Your task to perform on an android device: turn on location history Image 0: 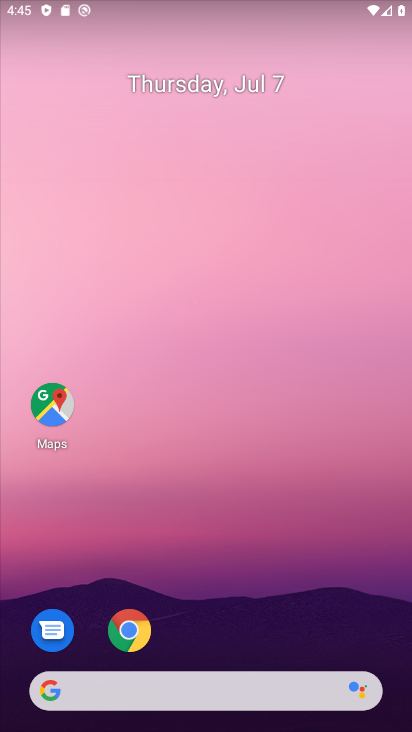
Step 0: drag from (276, 679) to (154, 167)
Your task to perform on an android device: turn on location history Image 1: 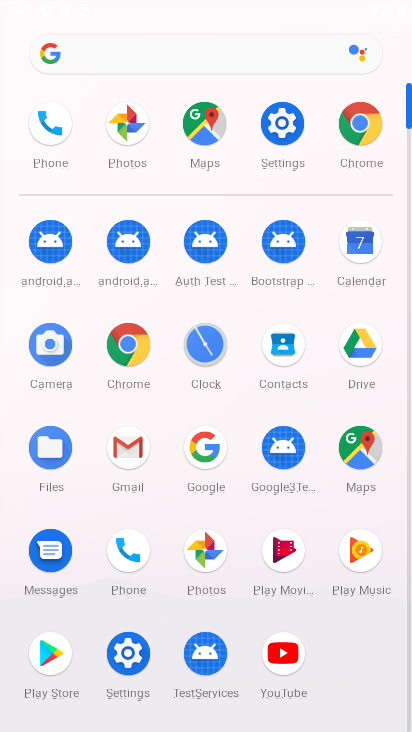
Step 1: click (285, 113)
Your task to perform on an android device: turn on location history Image 2: 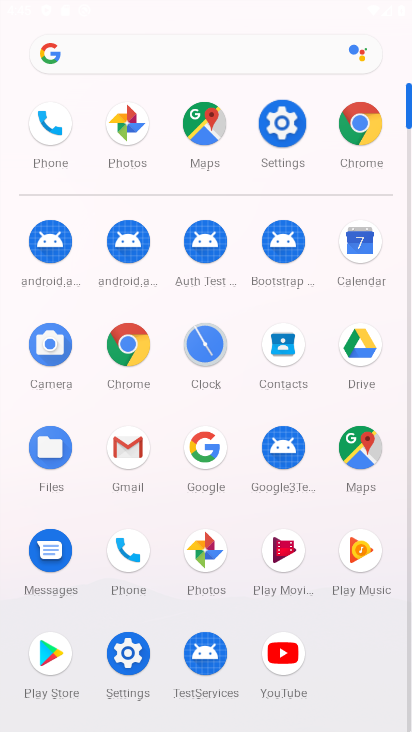
Step 2: click (284, 114)
Your task to perform on an android device: turn on location history Image 3: 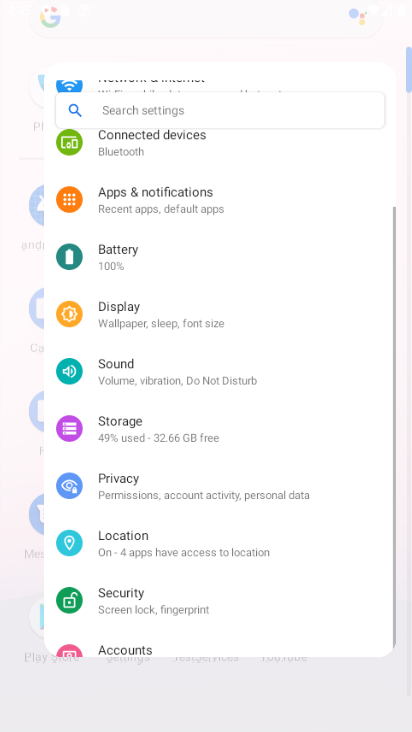
Step 3: click (284, 114)
Your task to perform on an android device: turn on location history Image 4: 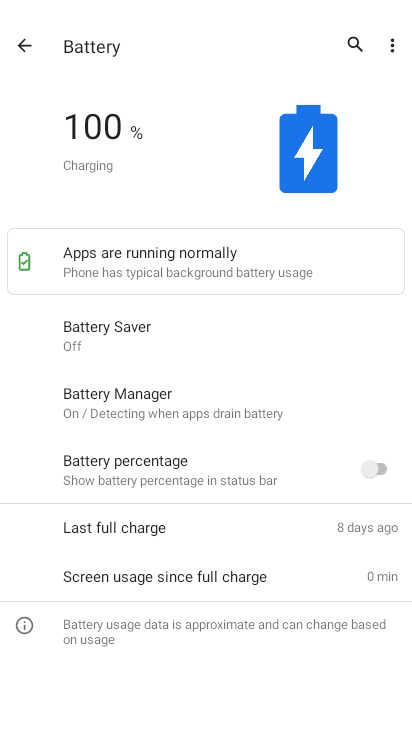
Step 4: click (25, 39)
Your task to perform on an android device: turn on location history Image 5: 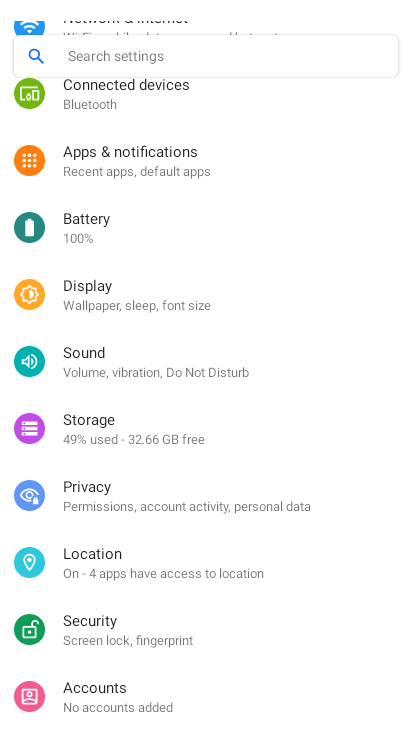
Step 5: click (107, 552)
Your task to perform on an android device: turn on location history Image 6: 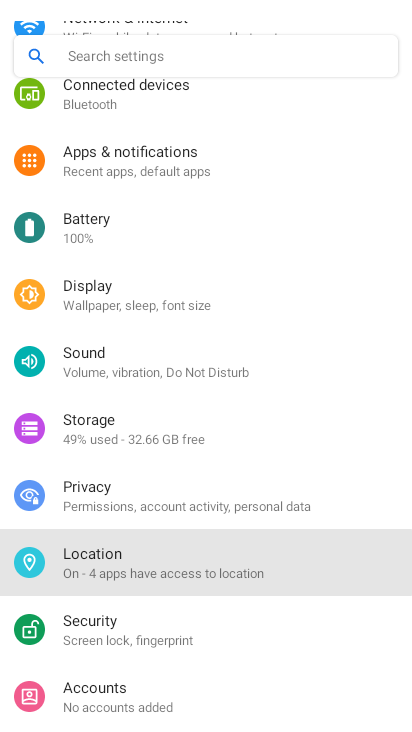
Step 6: click (106, 553)
Your task to perform on an android device: turn on location history Image 7: 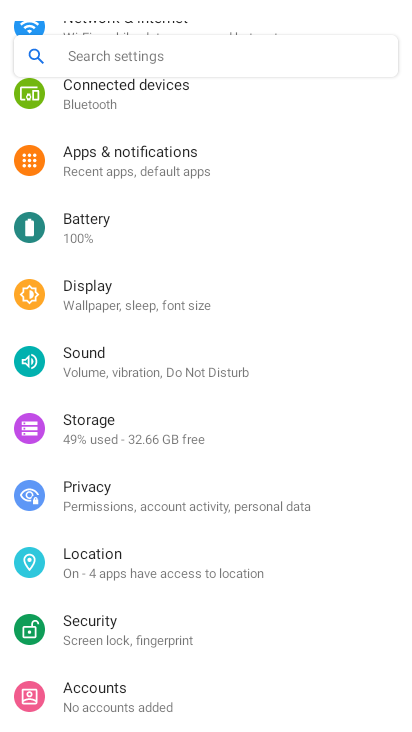
Step 7: click (106, 553)
Your task to perform on an android device: turn on location history Image 8: 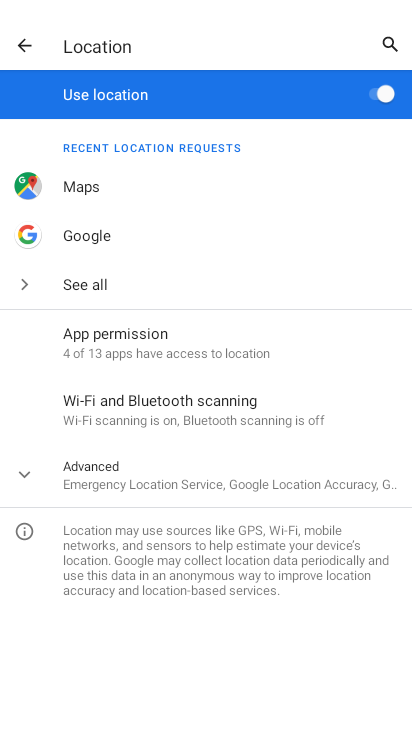
Step 8: click (109, 475)
Your task to perform on an android device: turn on location history Image 9: 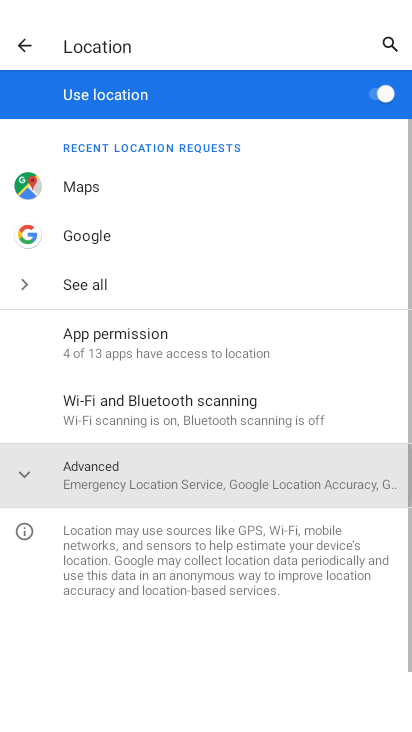
Step 9: click (104, 473)
Your task to perform on an android device: turn on location history Image 10: 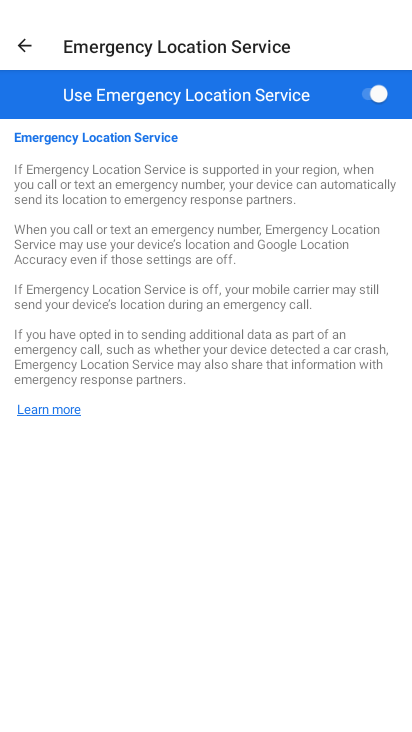
Step 10: click (21, 34)
Your task to perform on an android device: turn on location history Image 11: 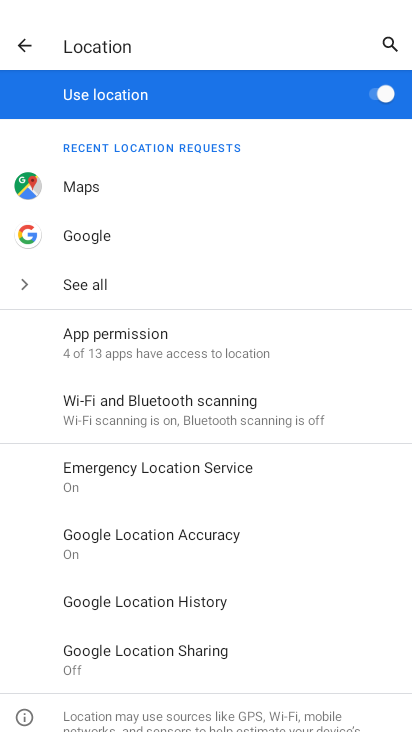
Step 11: click (149, 586)
Your task to perform on an android device: turn on location history Image 12: 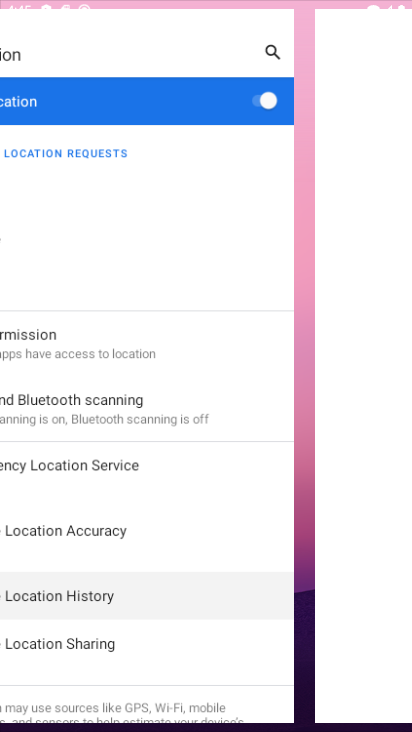
Step 12: click (148, 593)
Your task to perform on an android device: turn on location history Image 13: 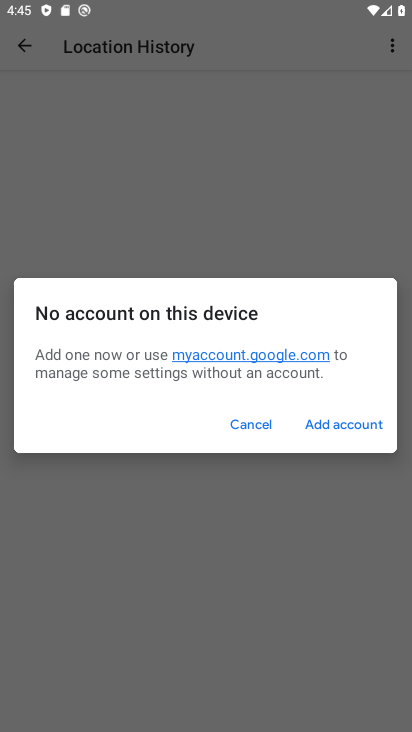
Step 13: click (256, 420)
Your task to perform on an android device: turn on location history Image 14: 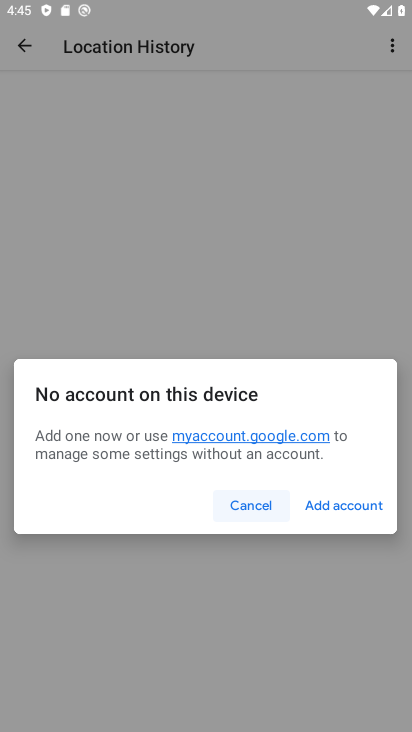
Step 14: click (256, 420)
Your task to perform on an android device: turn on location history Image 15: 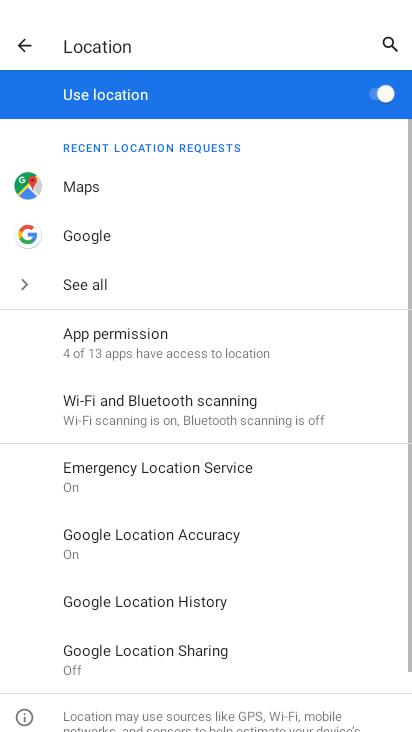
Step 15: task complete